Your task to perform on an android device: turn off improve location accuracy Image 0: 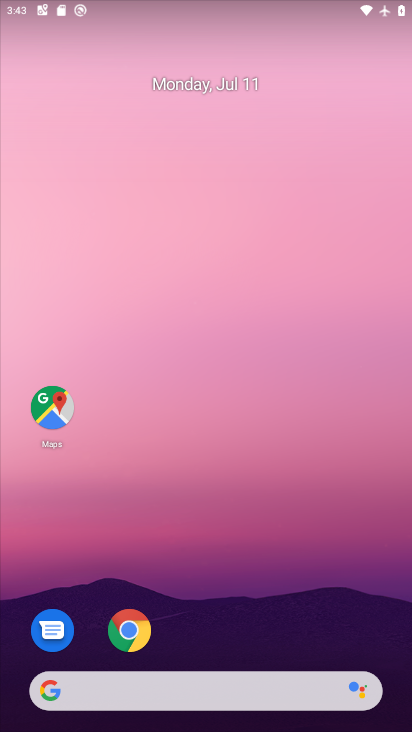
Step 0: drag from (282, 627) to (257, 172)
Your task to perform on an android device: turn off improve location accuracy Image 1: 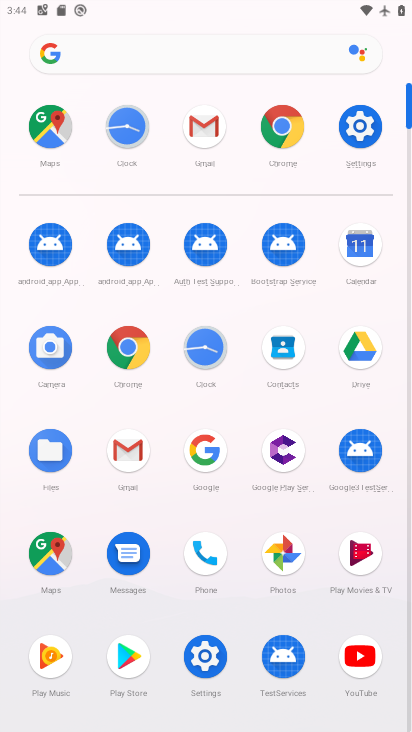
Step 1: click (351, 125)
Your task to perform on an android device: turn off improve location accuracy Image 2: 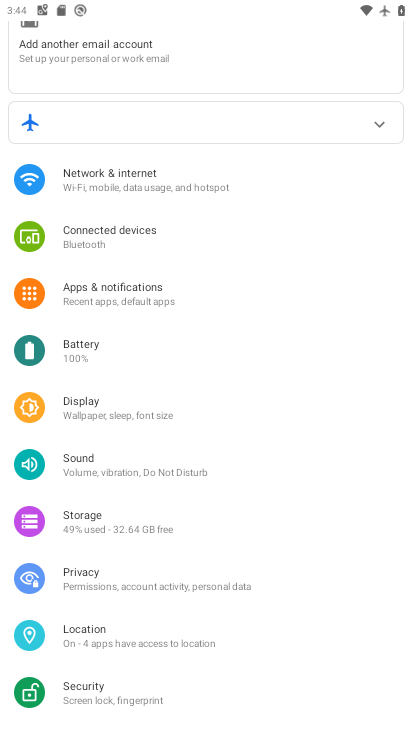
Step 2: click (211, 637)
Your task to perform on an android device: turn off improve location accuracy Image 3: 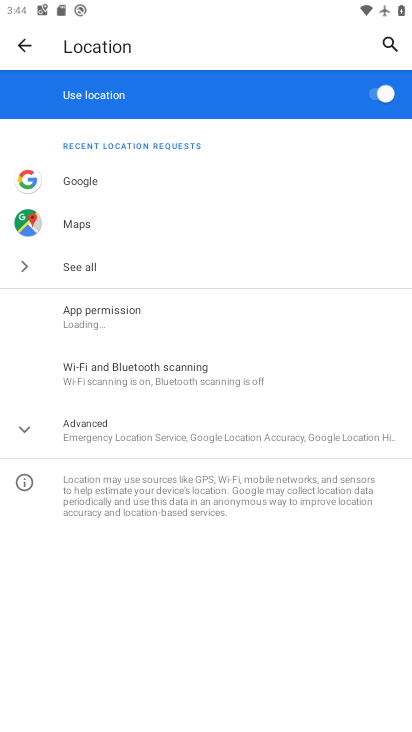
Step 3: click (136, 413)
Your task to perform on an android device: turn off improve location accuracy Image 4: 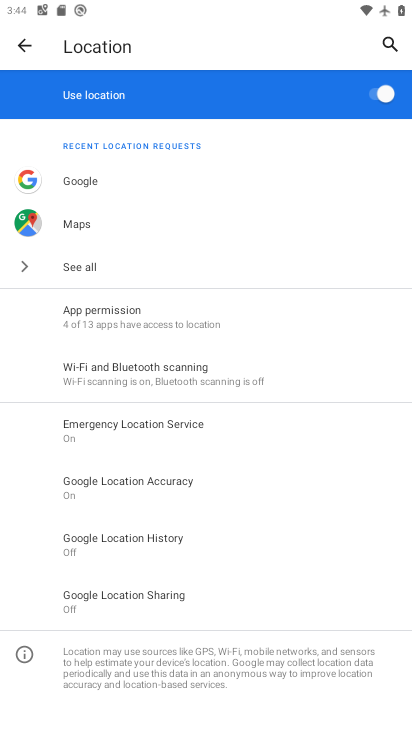
Step 4: click (160, 478)
Your task to perform on an android device: turn off improve location accuracy Image 5: 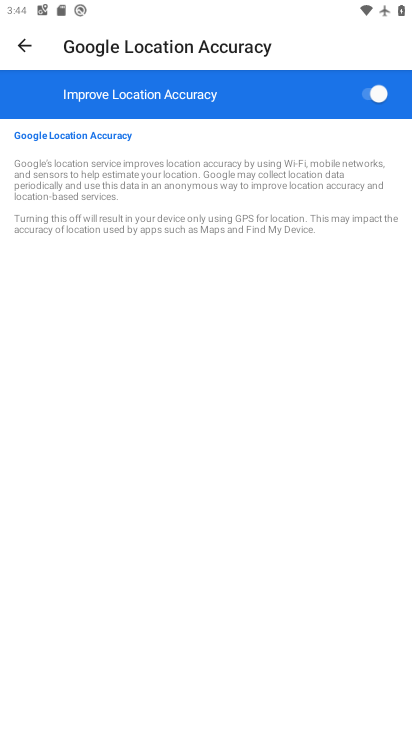
Step 5: click (334, 97)
Your task to perform on an android device: turn off improve location accuracy Image 6: 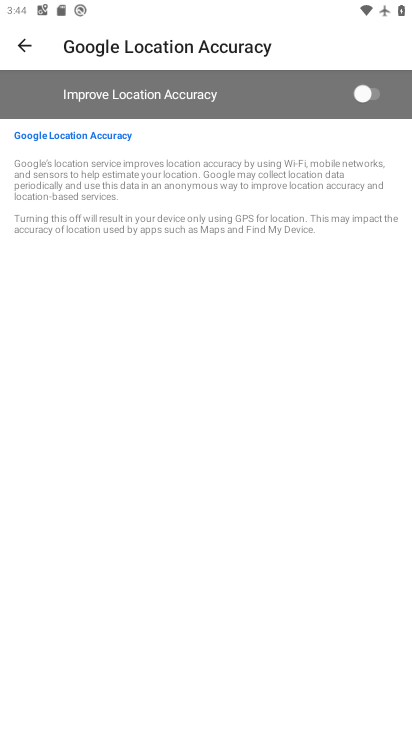
Step 6: task complete